Your task to perform on an android device: Toggle the flashlight Image 0: 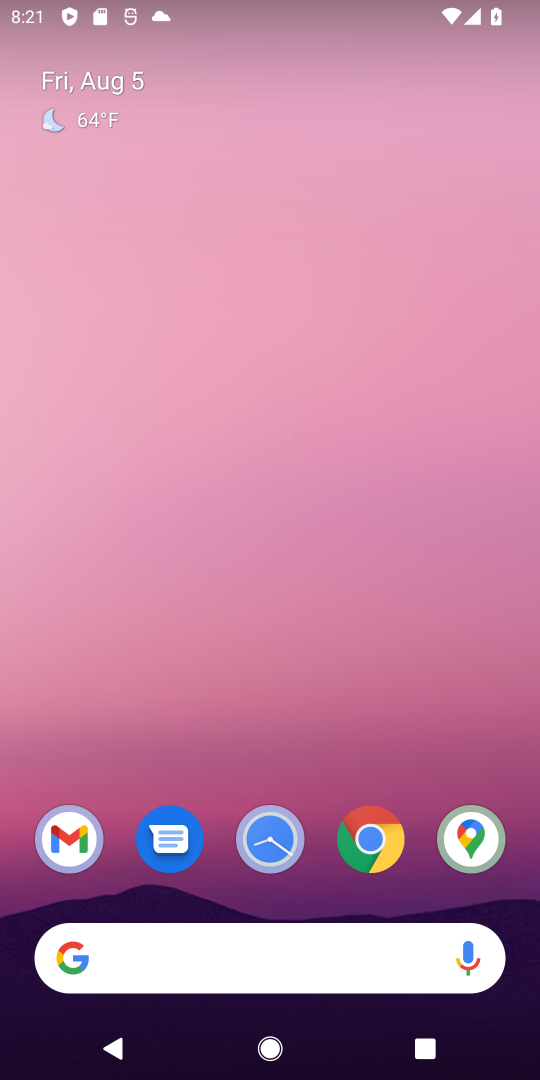
Step 0: drag from (341, 874) to (328, 61)
Your task to perform on an android device: Toggle the flashlight Image 1: 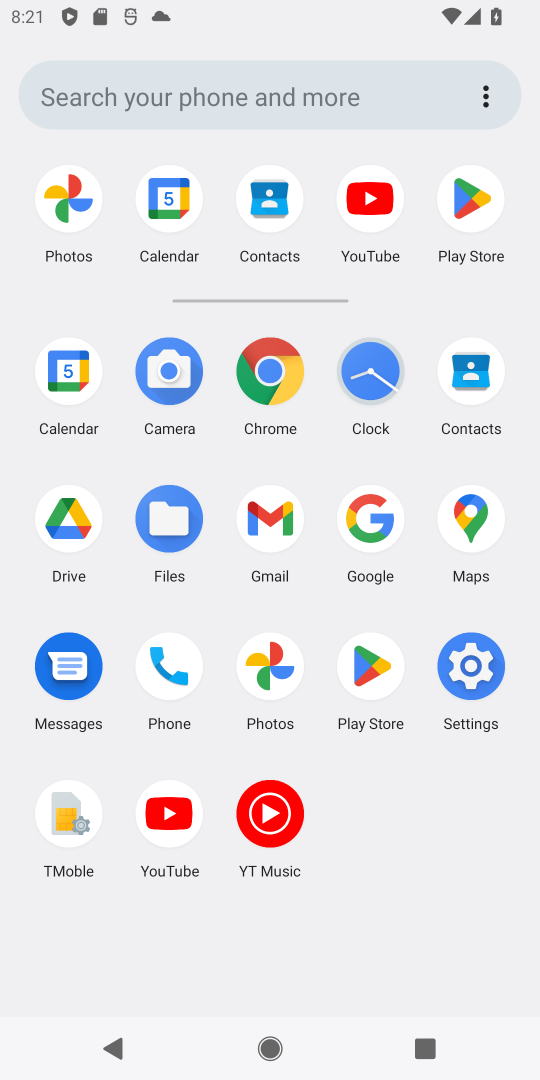
Step 1: click (476, 674)
Your task to perform on an android device: Toggle the flashlight Image 2: 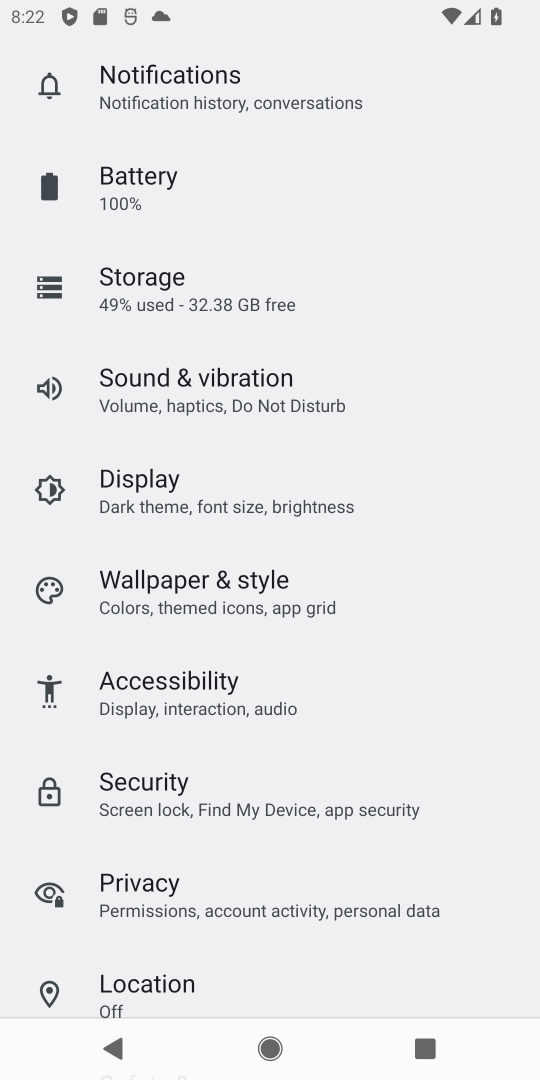
Step 2: task complete